Your task to perform on an android device: Open network settings Image 0: 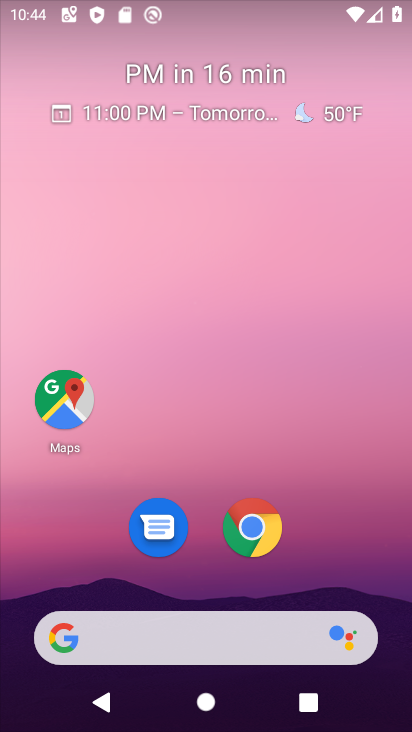
Step 0: press home button
Your task to perform on an android device: Open network settings Image 1: 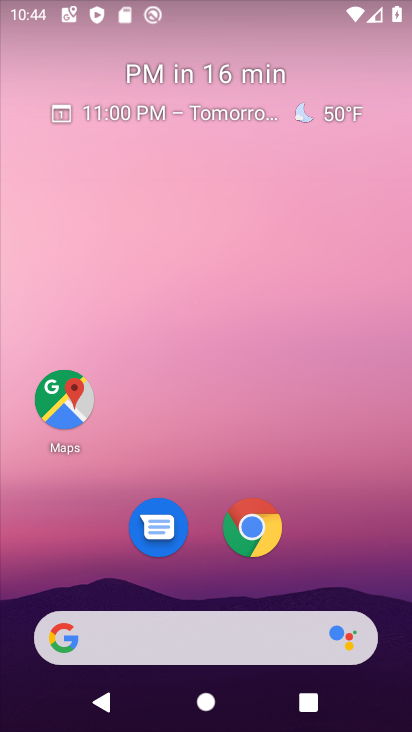
Step 1: drag from (351, 526) to (374, 138)
Your task to perform on an android device: Open network settings Image 2: 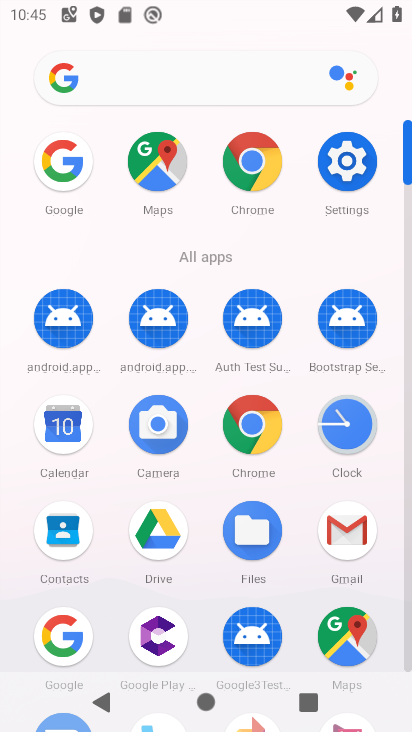
Step 2: click (343, 168)
Your task to perform on an android device: Open network settings Image 3: 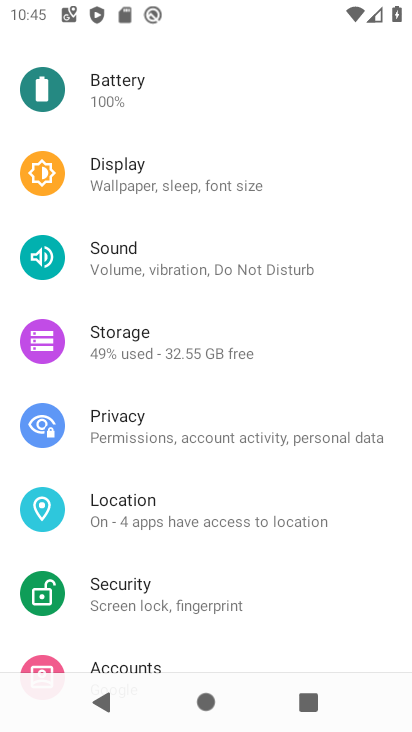
Step 3: drag from (301, 128) to (299, 507)
Your task to perform on an android device: Open network settings Image 4: 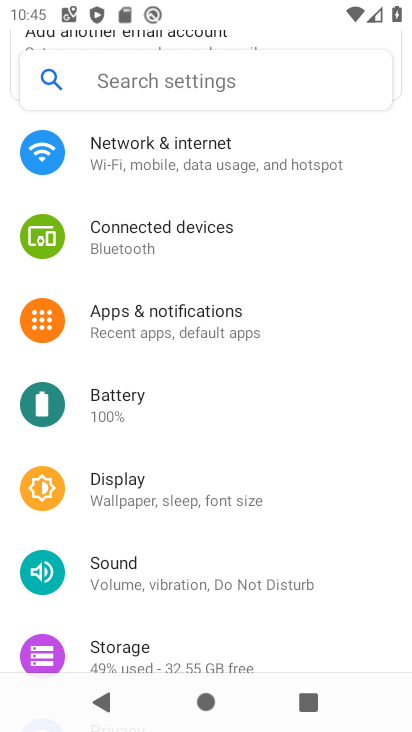
Step 4: drag from (291, 181) to (254, 489)
Your task to perform on an android device: Open network settings Image 5: 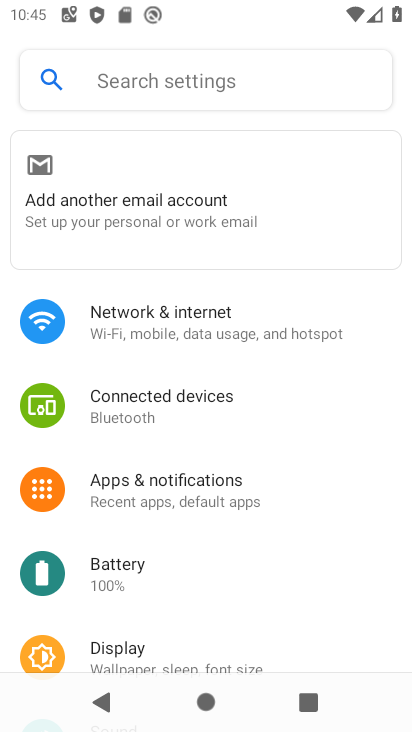
Step 5: click (197, 329)
Your task to perform on an android device: Open network settings Image 6: 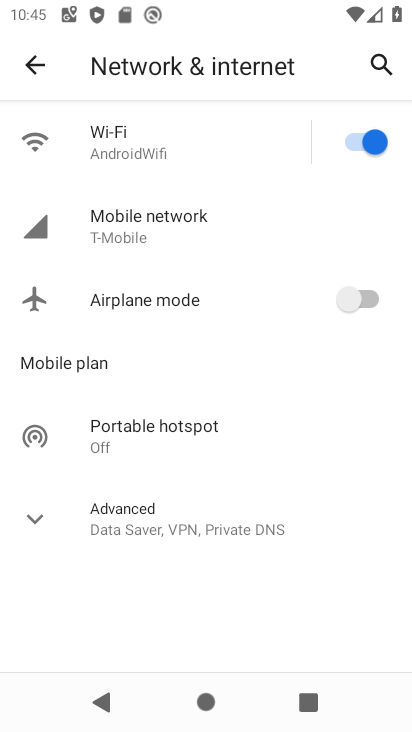
Step 6: click (193, 154)
Your task to perform on an android device: Open network settings Image 7: 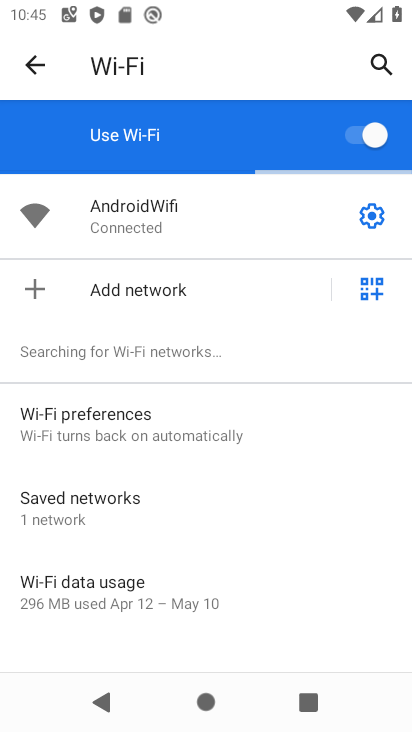
Step 7: task complete